Your task to perform on an android device: Show the shopping cart on bestbuy. Search for duracell triple a on bestbuy, select the first entry, add it to the cart, then select checkout. Image 0: 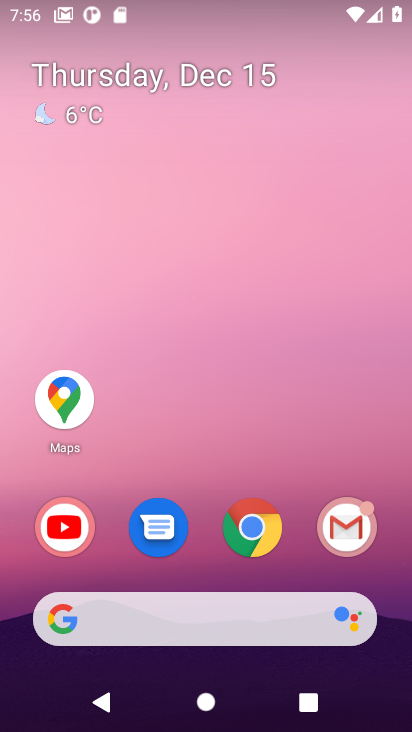
Step 0: click (259, 542)
Your task to perform on an android device: Show the shopping cart on bestbuy. Search for duracell triple a on bestbuy, select the first entry, add it to the cart, then select checkout. Image 1: 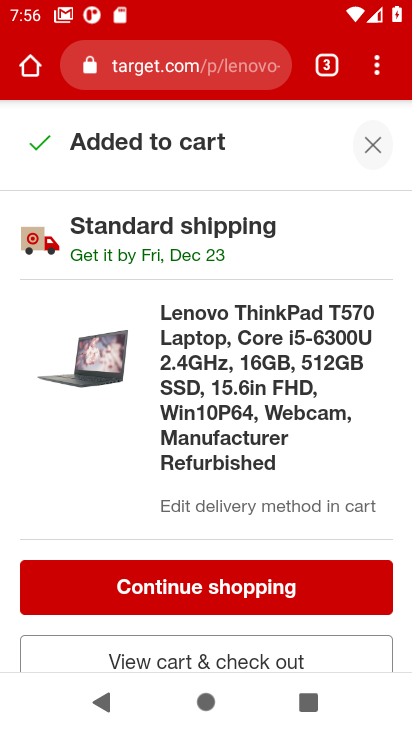
Step 1: click (158, 72)
Your task to perform on an android device: Show the shopping cart on bestbuy. Search for duracell triple a on bestbuy, select the first entry, add it to the cart, then select checkout. Image 2: 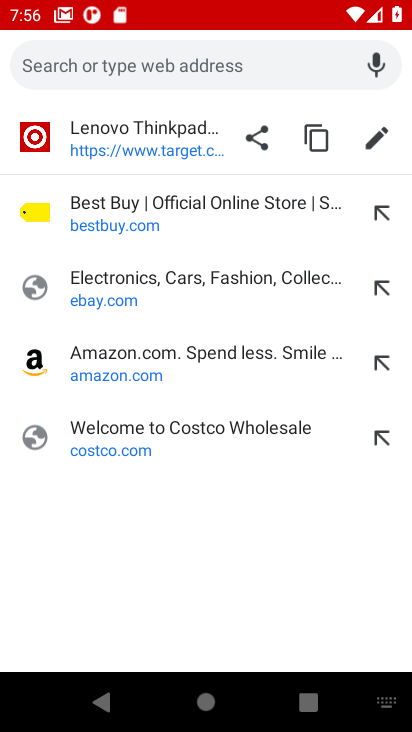
Step 2: click (107, 217)
Your task to perform on an android device: Show the shopping cart on bestbuy. Search for duracell triple a on bestbuy, select the first entry, add it to the cart, then select checkout. Image 3: 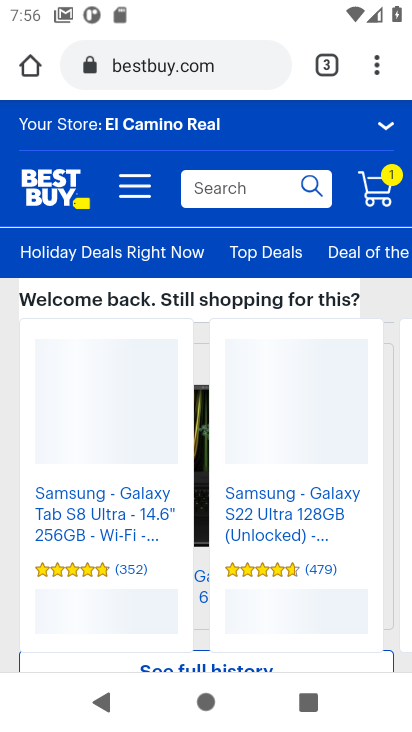
Step 3: click (215, 196)
Your task to perform on an android device: Show the shopping cart on bestbuy. Search for duracell triple a on bestbuy, select the first entry, add it to the cart, then select checkout. Image 4: 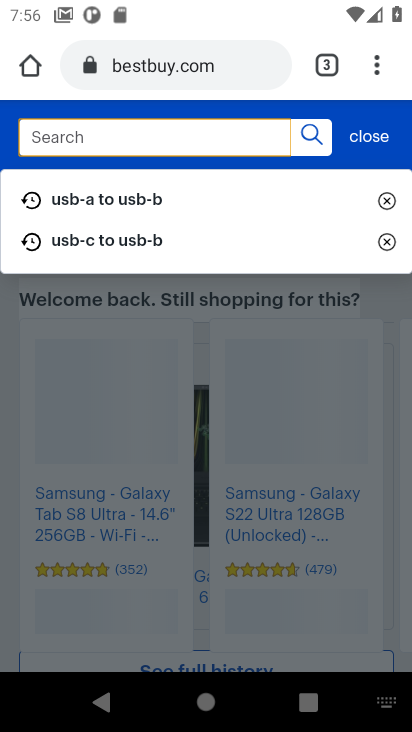
Step 4: type "duracell triple a'"
Your task to perform on an android device: Show the shopping cart on bestbuy. Search for duracell triple a on bestbuy, select the first entry, add it to the cart, then select checkout. Image 5: 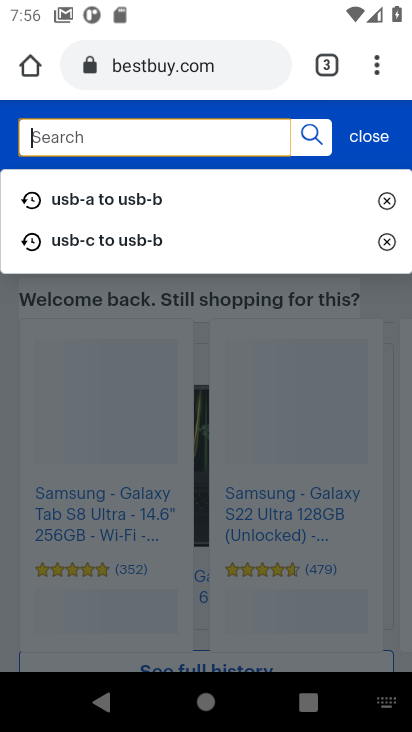
Step 5: click (170, 147)
Your task to perform on an android device: Show the shopping cart on bestbuy. Search for duracell triple a on bestbuy, select the first entry, add it to the cart, then select checkout. Image 6: 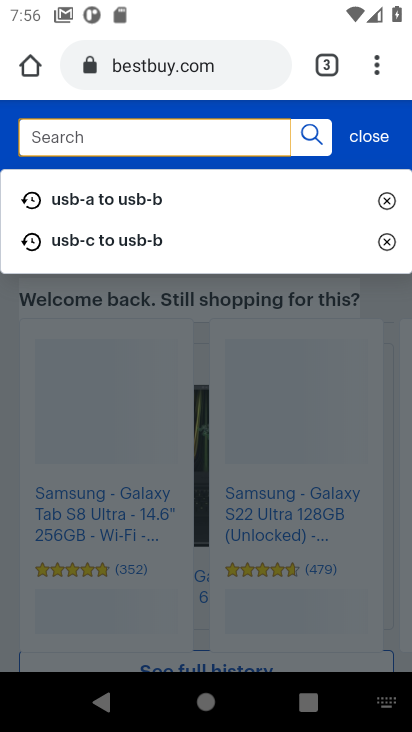
Step 6: type "duracelll triple a"
Your task to perform on an android device: Show the shopping cart on bestbuy. Search for duracell triple a on bestbuy, select the first entry, add it to the cart, then select checkout. Image 7: 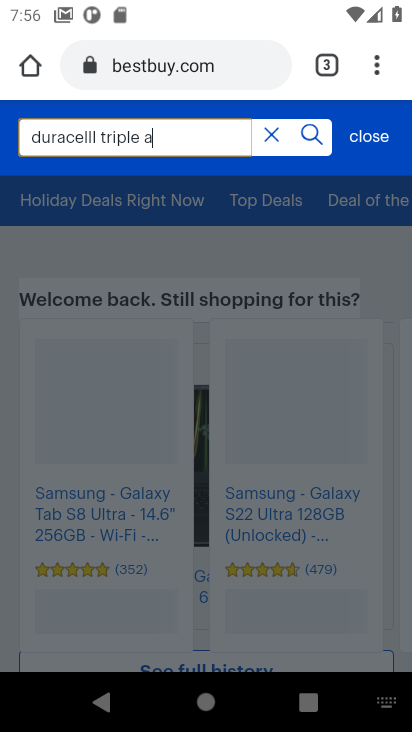
Step 7: click (301, 151)
Your task to perform on an android device: Show the shopping cart on bestbuy. Search for duracell triple a on bestbuy, select the first entry, add it to the cart, then select checkout. Image 8: 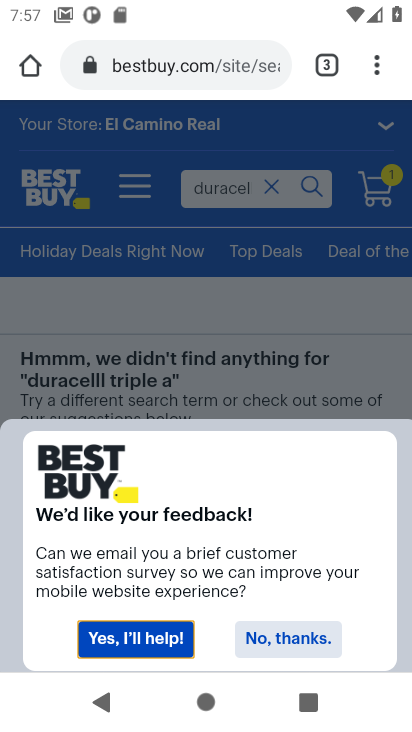
Step 8: click (163, 631)
Your task to perform on an android device: Show the shopping cart on bestbuy. Search for duracell triple a on bestbuy, select the first entry, add it to the cart, then select checkout. Image 9: 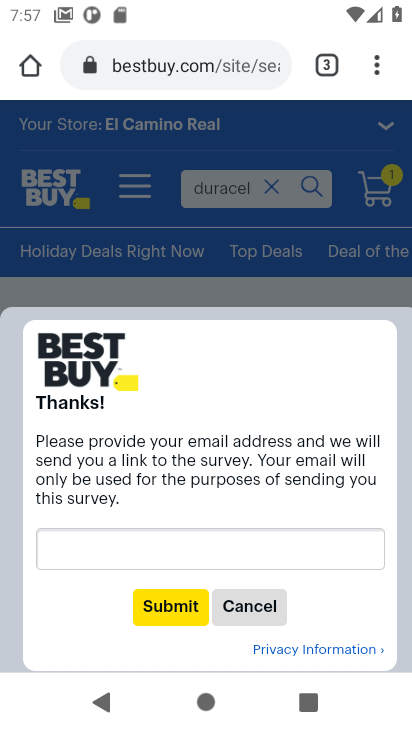
Step 9: click (176, 611)
Your task to perform on an android device: Show the shopping cart on bestbuy. Search for duracell triple a on bestbuy, select the first entry, add it to the cart, then select checkout. Image 10: 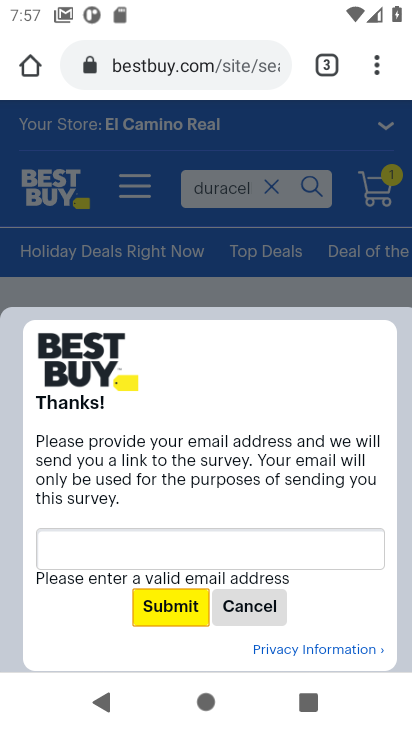
Step 10: click (255, 605)
Your task to perform on an android device: Show the shopping cart on bestbuy. Search for duracell triple a on bestbuy, select the first entry, add it to the cart, then select checkout. Image 11: 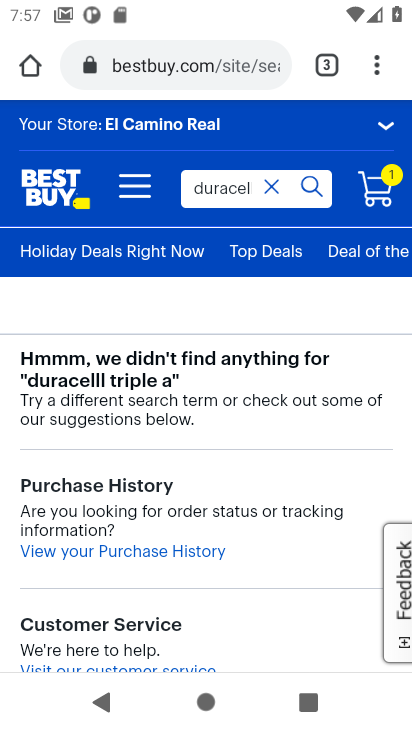
Step 11: click (255, 605)
Your task to perform on an android device: Show the shopping cart on bestbuy. Search for duracell triple a on bestbuy, select the first entry, add it to the cart, then select checkout. Image 12: 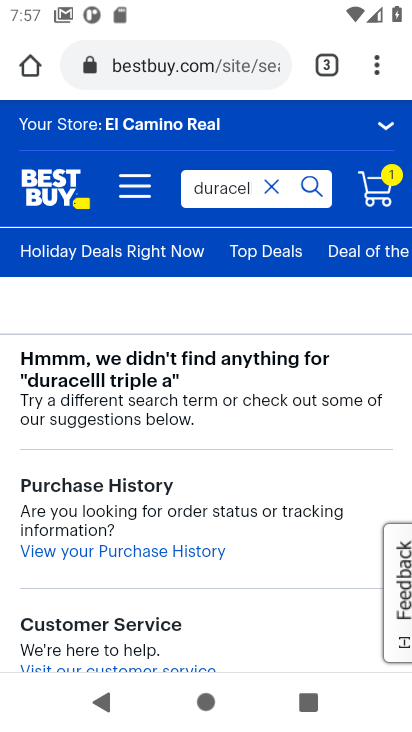
Step 12: task complete